Your task to perform on an android device: toggle priority inbox in the gmail app Image 0: 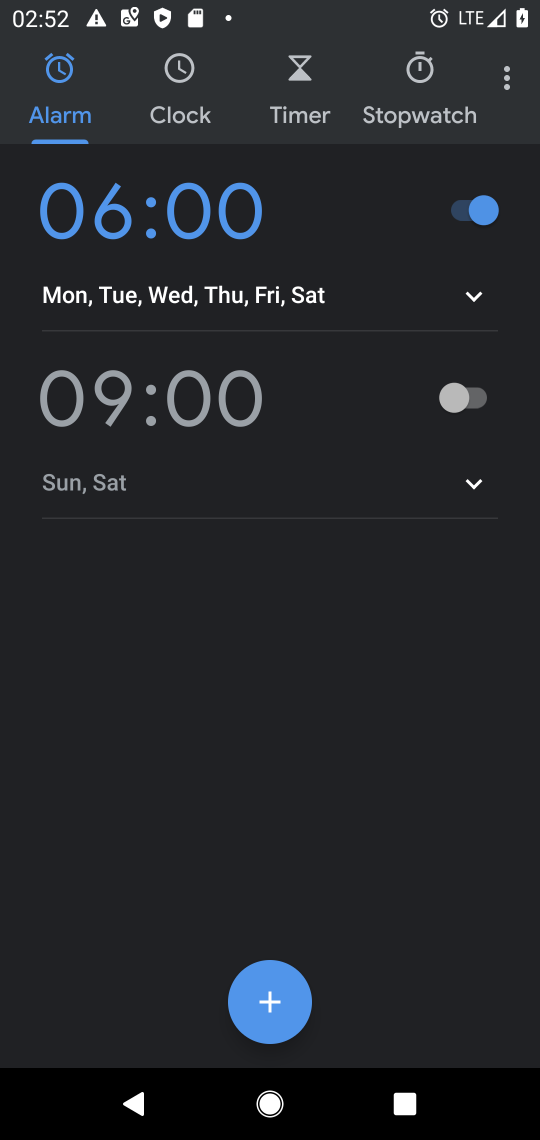
Step 0: press home button
Your task to perform on an android device: toggle priority inbox in the gmail app Image 1: 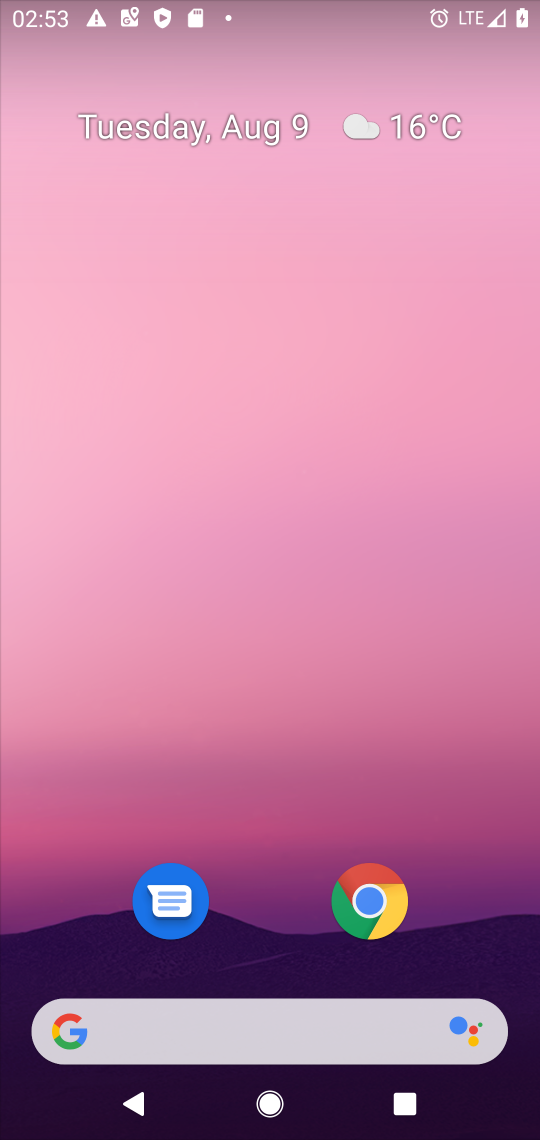
Step 1: drag from (477, 959) to (474, 146)
Your task to perform on an android device: toggle priority inbox in the gmail app Image 2: 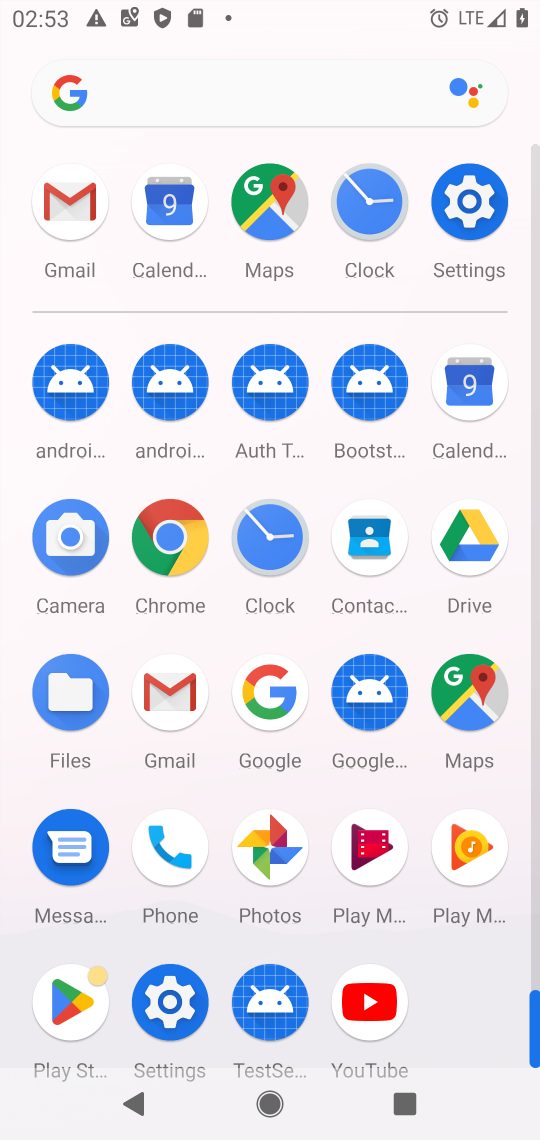
Step 2: click (168, 690)
Your task to perform on an android device: toggle priority inbox in the gmail app Image 3: 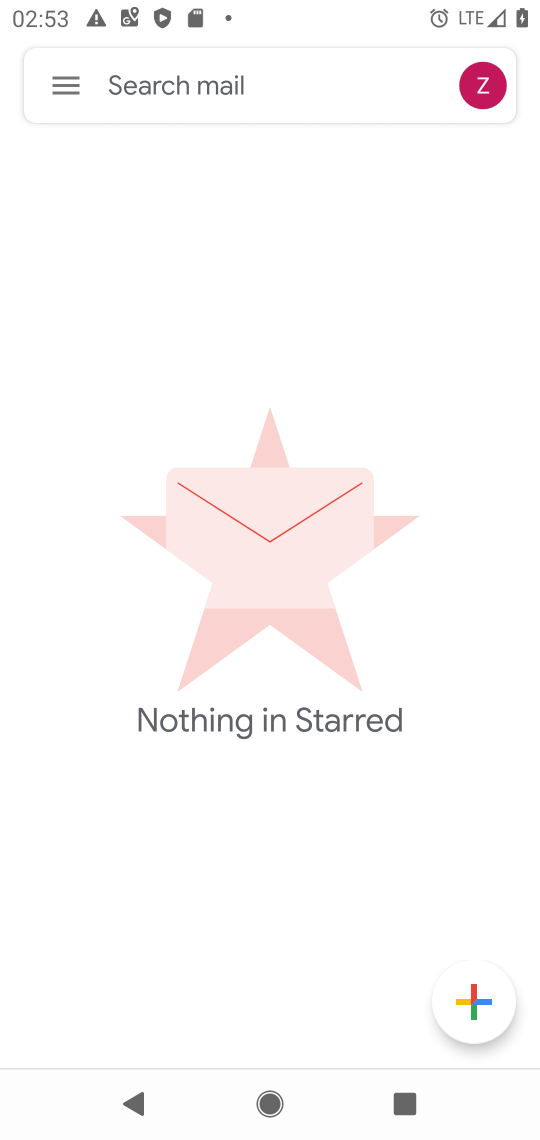
Step 3: click (58, 94)
Your task to perform on an android device: toggle priority inbox in the gmail app Image 4: 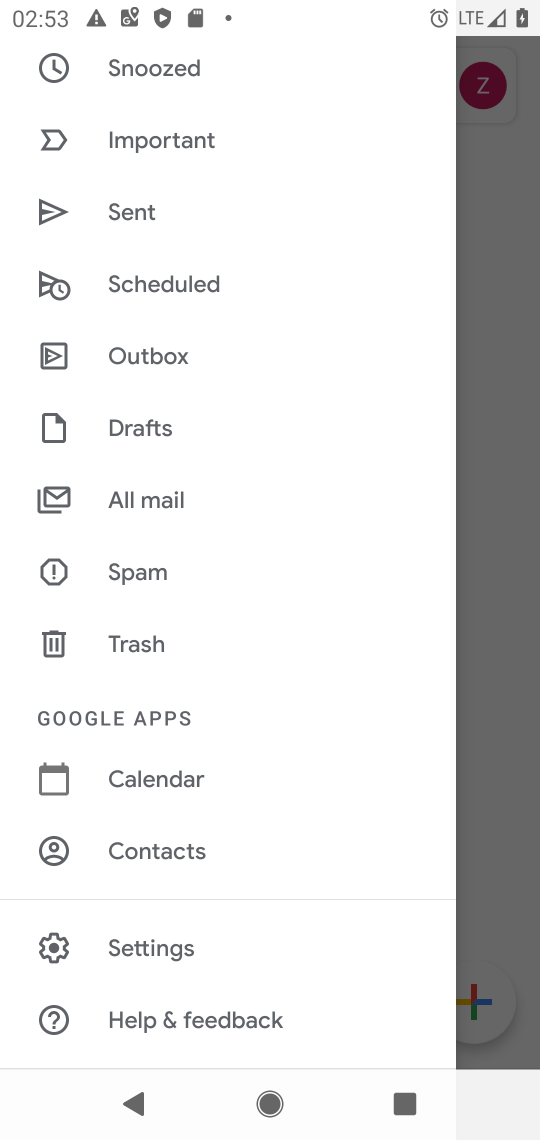
Step 4: click (169, 950)
Your task to perform on an android device: toggle priority inbox in the gmail app Image 5: 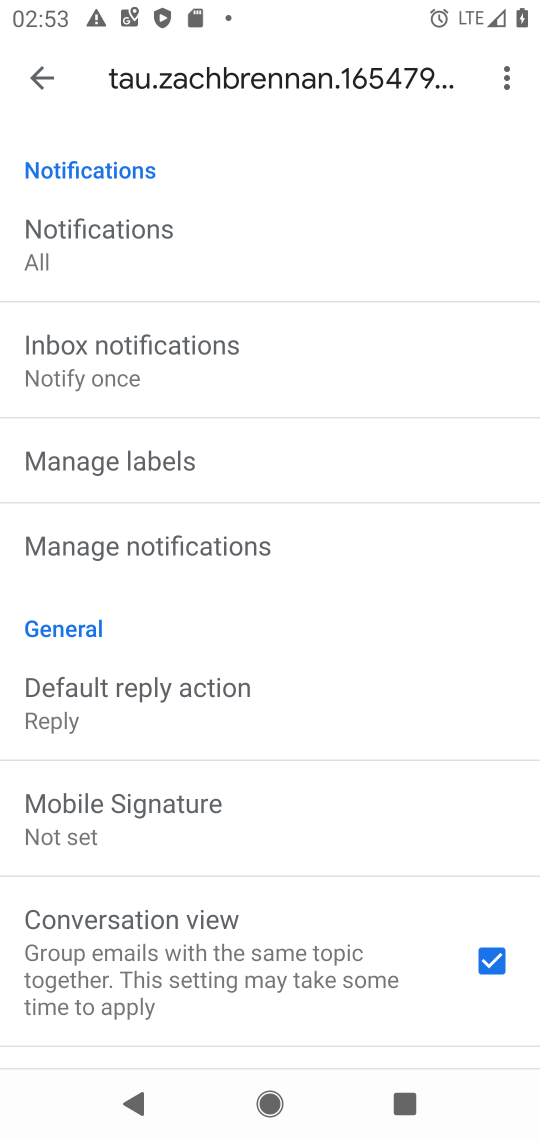
Step 5: drag from (337, 290) to (331, 702)
Your task to perform on an android device: toggle priority inbox in the gmail app Image 6: 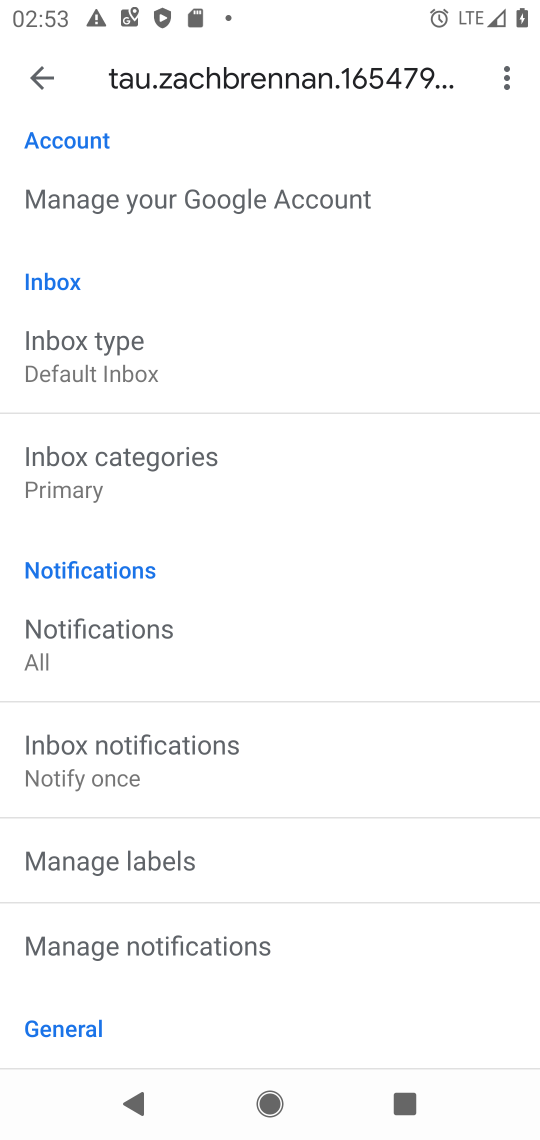
Step 6: click (51, 367)
Your task to perform on an android device: toggle priority inbox in the gmail app Image 7: 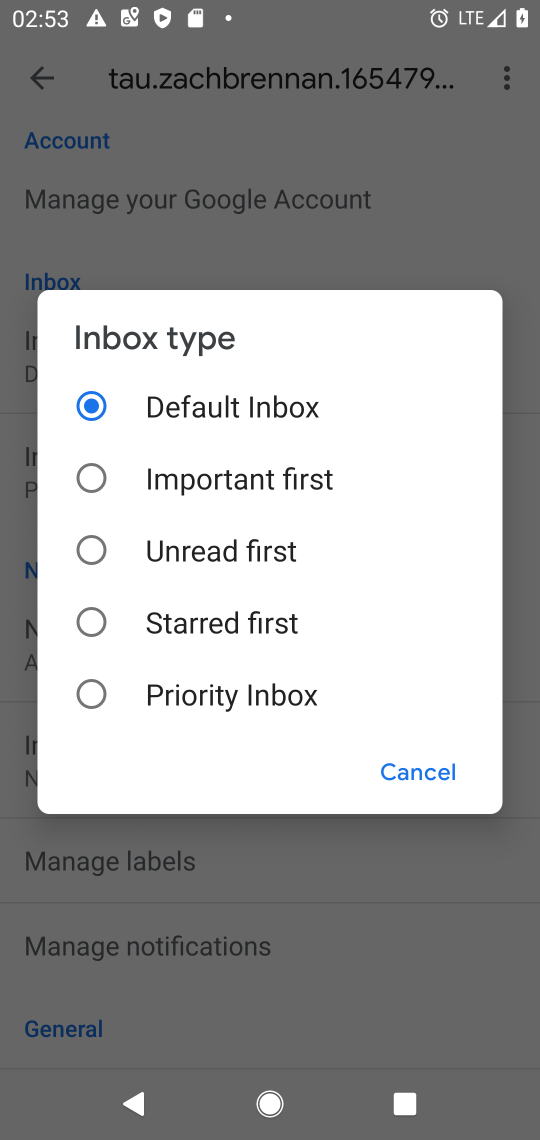
Step 7: click (99, 684)
Your task to perform on an android device: toggle priority inbox in the gmail app Image 8: 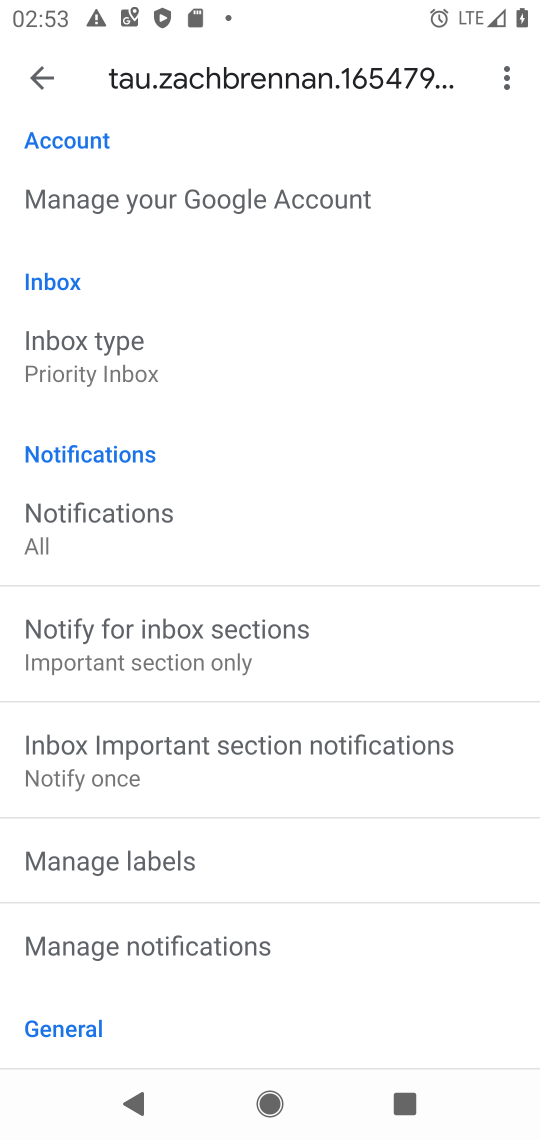
Step 8: task complete